Your task to perform on an android device: stop showing notifications on the lock screen Image 0: 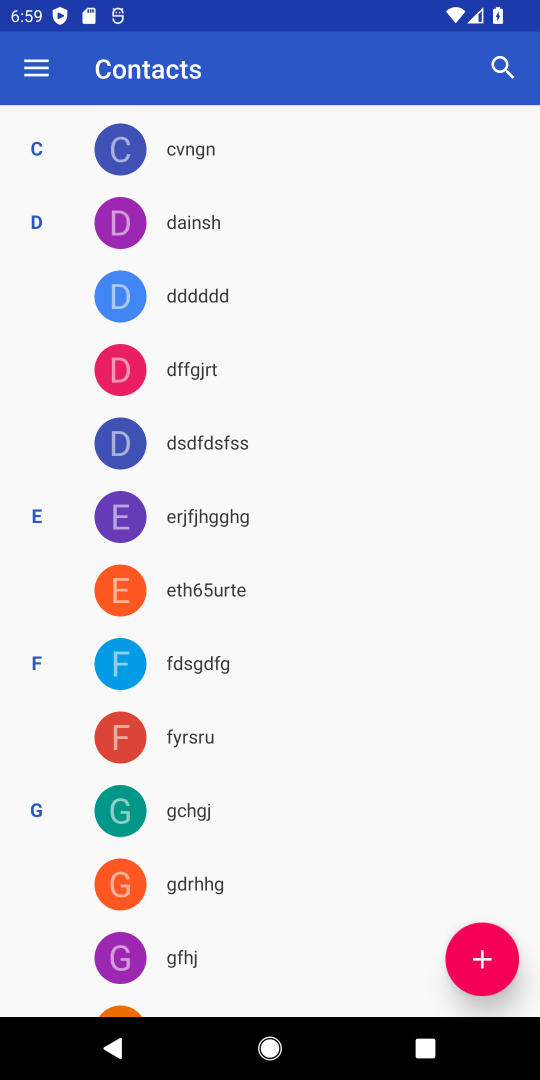
Step 0: press home button
Your task to perform on an android device: stop showing notifications on the lock screen Image 1: 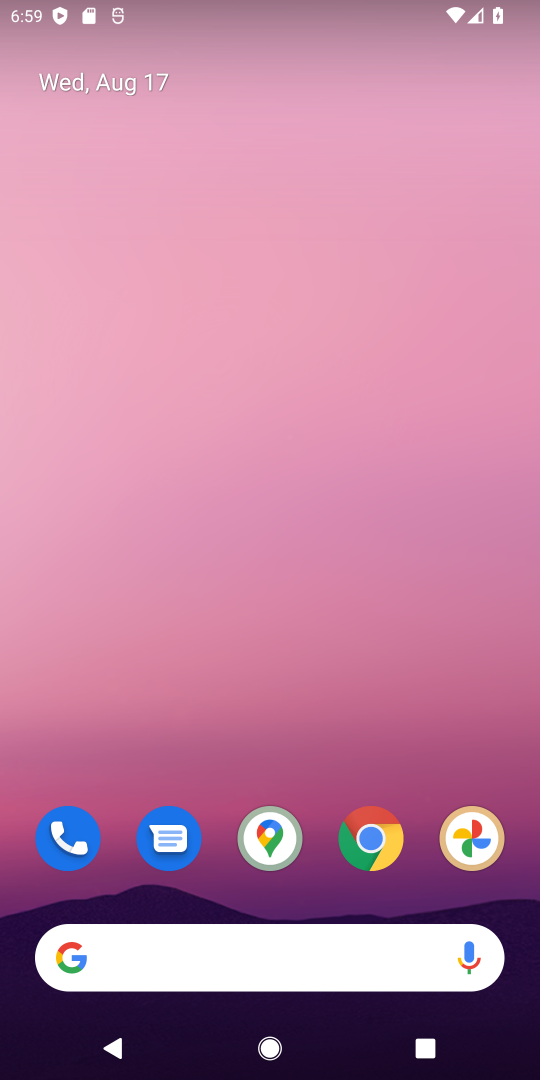
Step 1: drag from (295, 977) to (252, 268)
Your task to perform on an android device: stop showing notifications on the lock screen Image 2: 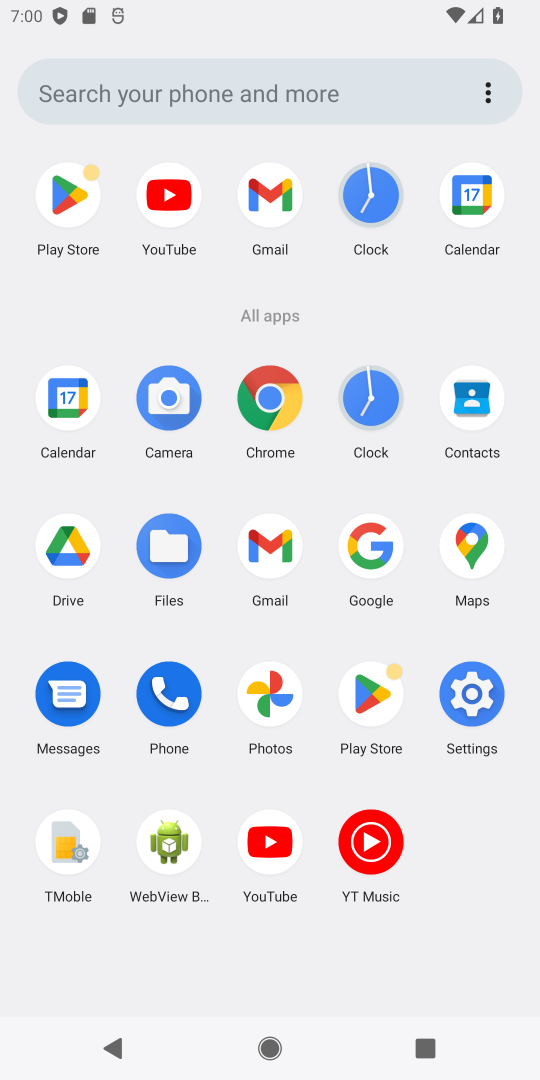
Step 2: click (463, 716)
Your task to perform on an android device: stop showing notifications on the lock screen Image 3: 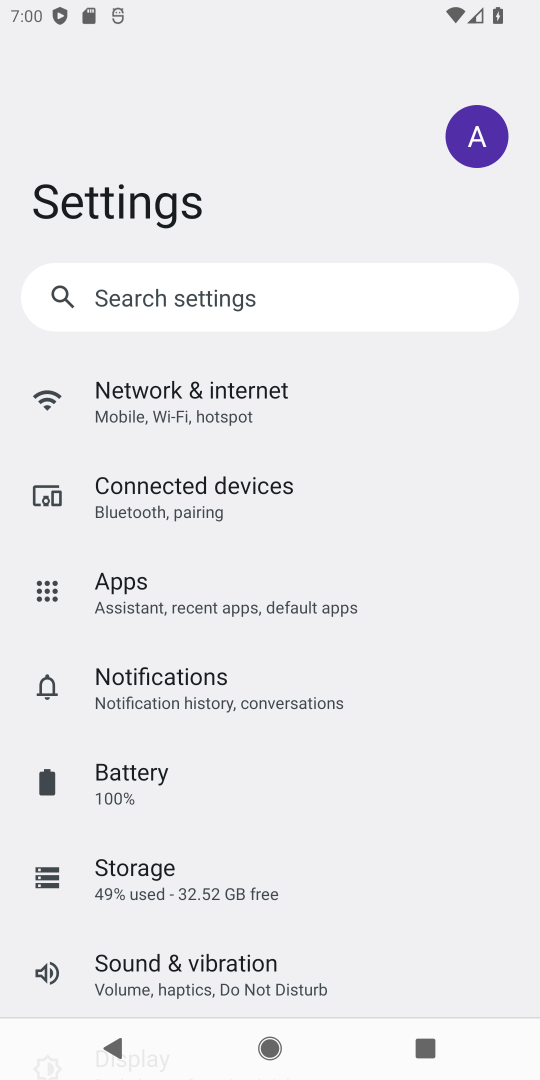
Step 3: click (305, 584)
Your task to perform on an android device: stop showing notifications on the lock screen Image 4: 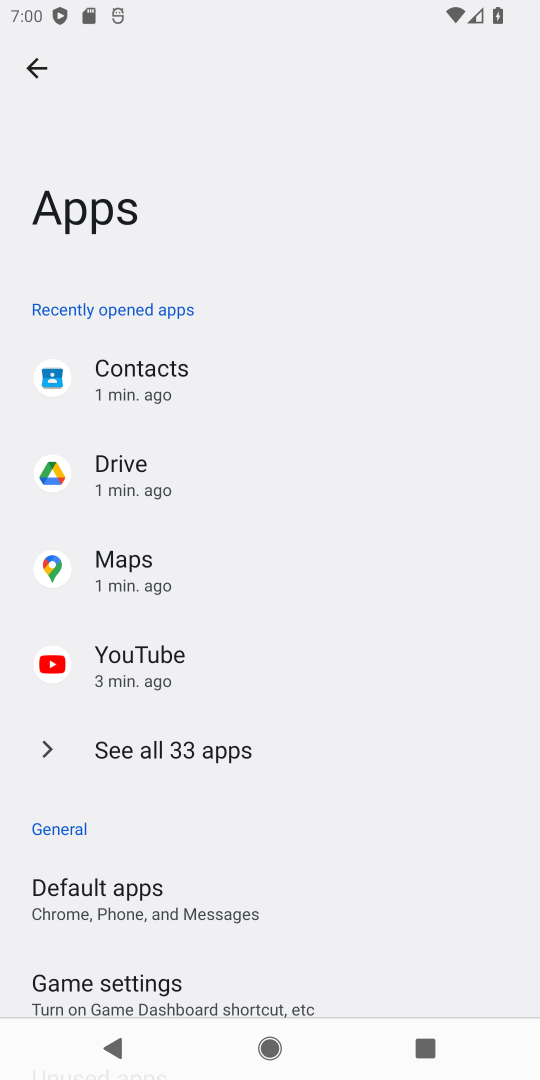
Step 4: drag from (239, 845) to (219, 316)
Your task to perform on an android device: stop showing notifications on the lock screen Image 5: 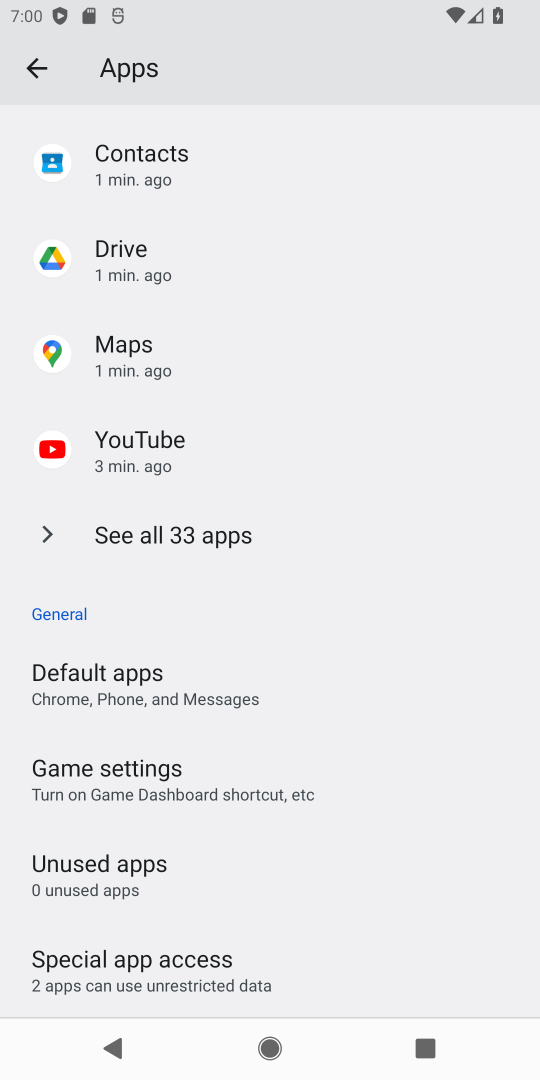
Step 5: click (181, 956)
Your task to perform on an android device: stop showing notifications on the lock screen Image 6: 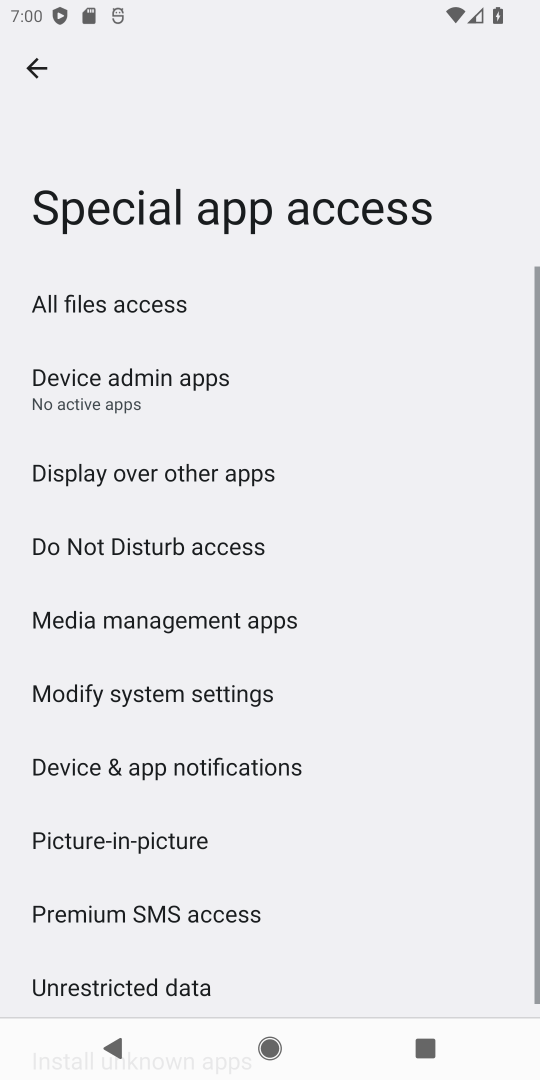
Step 6: task complete